Your task to perform on an android device: open app "NewsBreak: Local News & Alerts" Image 0: 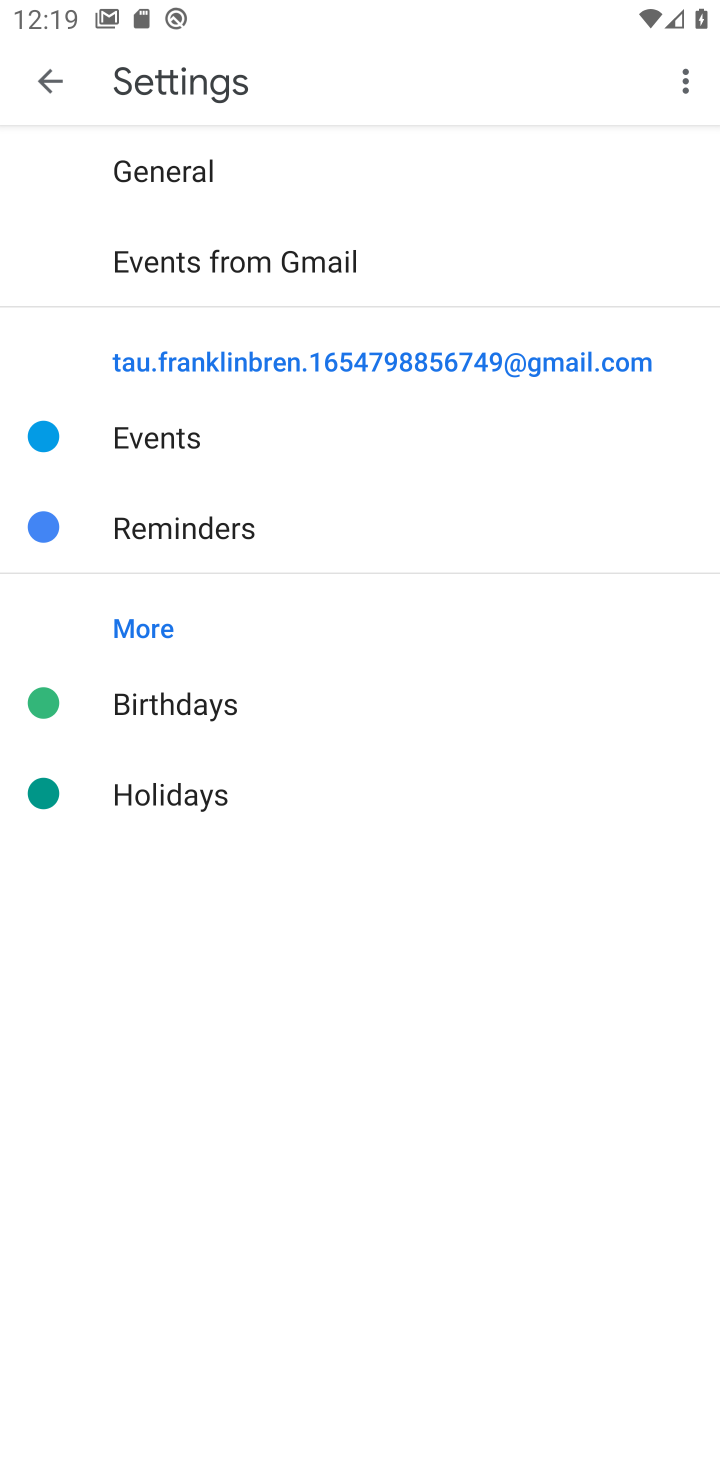
Step 0: press home button
Your task to perform on an android device: open app "NewsBreak: Local News & Alerts" Image 1: 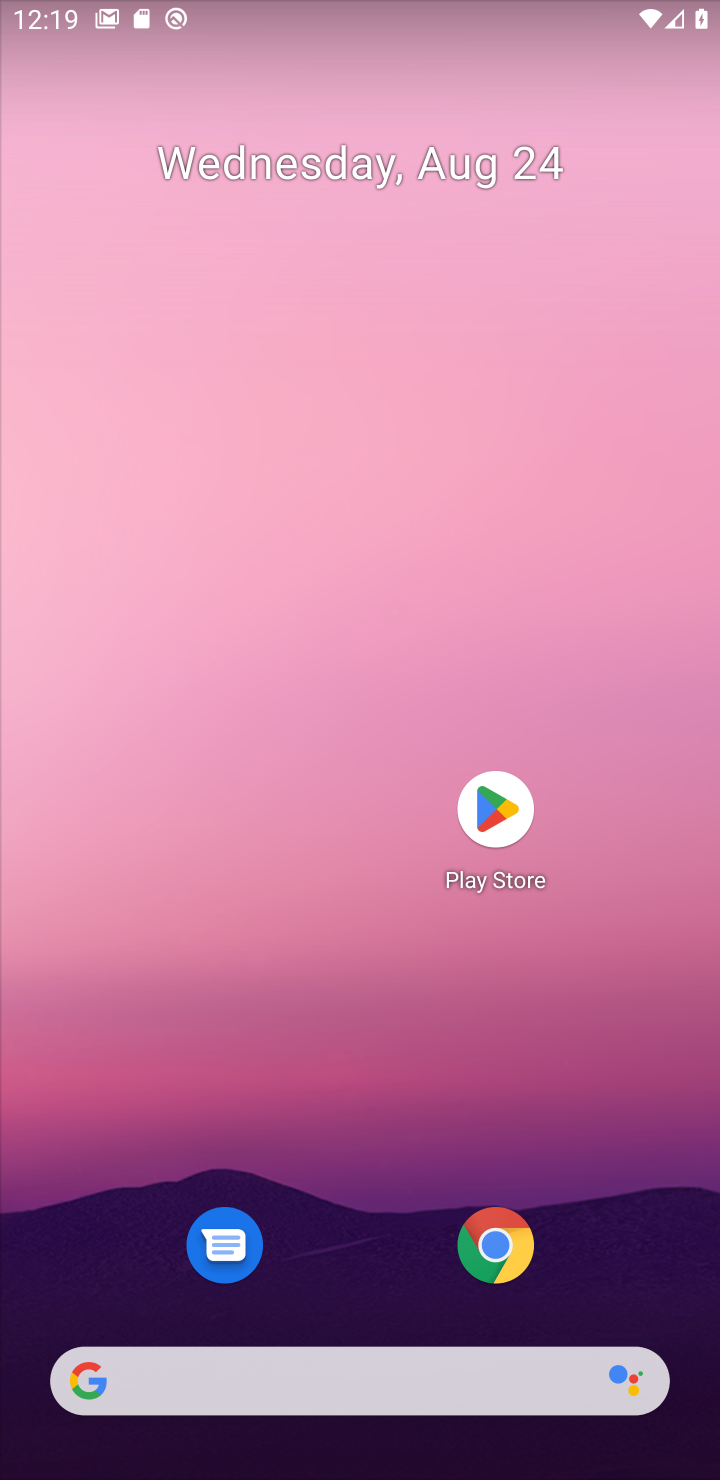
Step 1: click (495, 795)
Your task to perform on an android device: open app "NewsBreak: Local News & Alerts" Image 2: 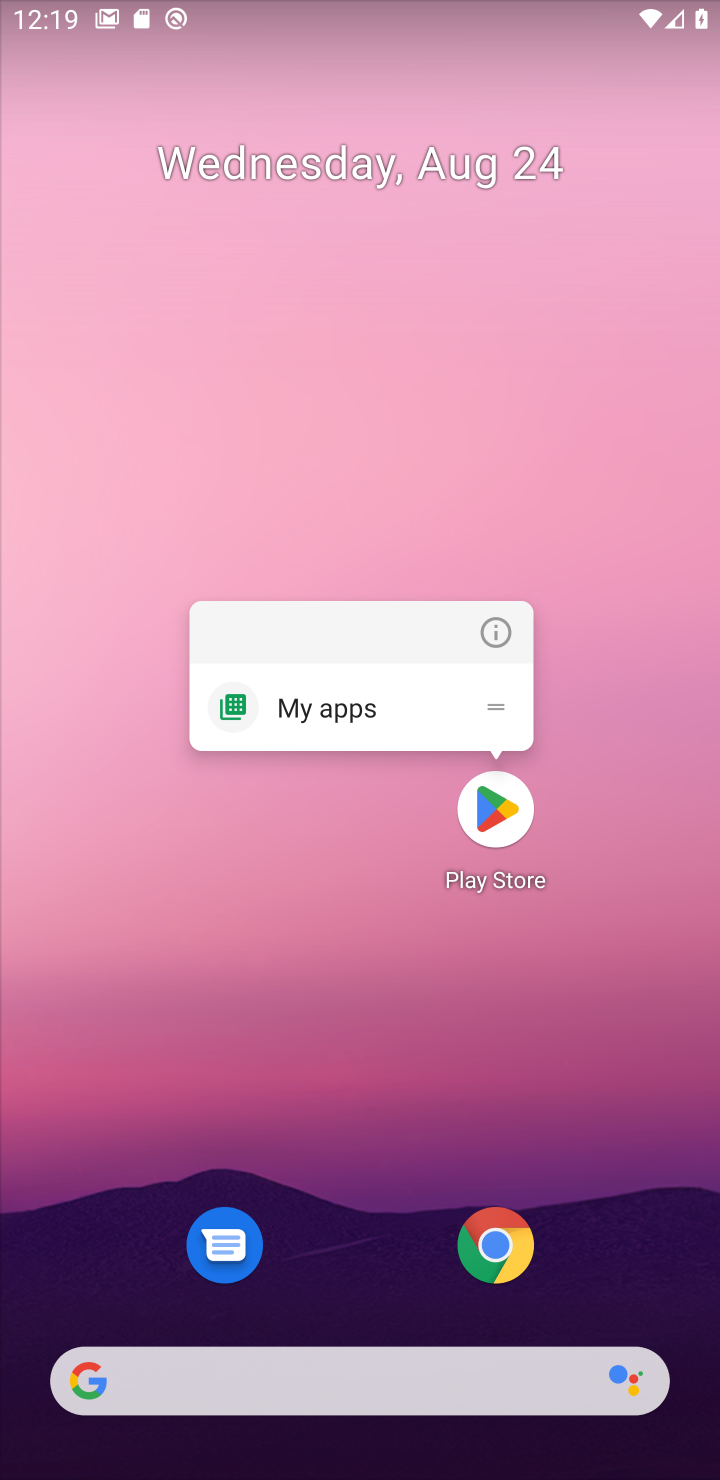
Step 2: click (495, 798)
Your task to perform on an android device: open app "NewsBreak: Local News & Alerts" Image 3: 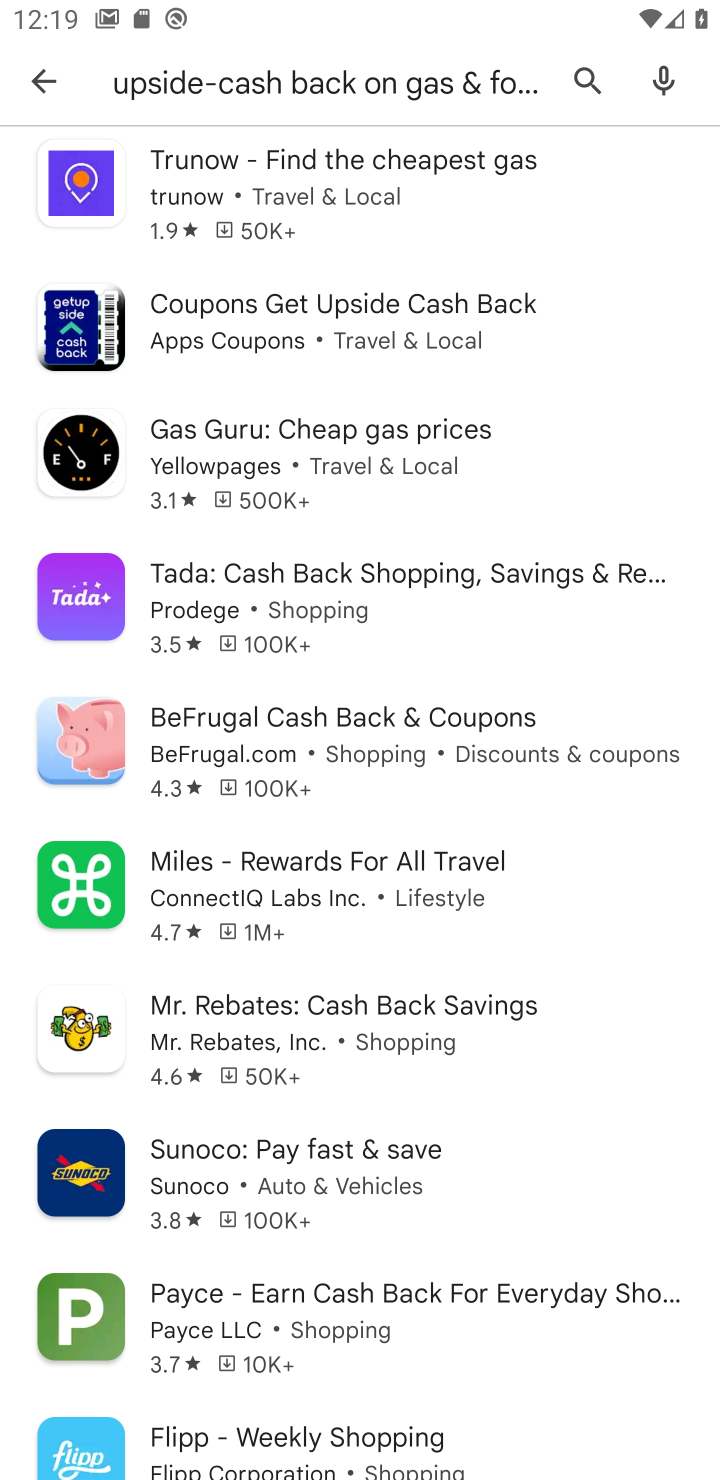
Step 3: click (586, 82)
Your task to perform on an android device: open app "NewsBreak: Local News & Alerts" Image 4: 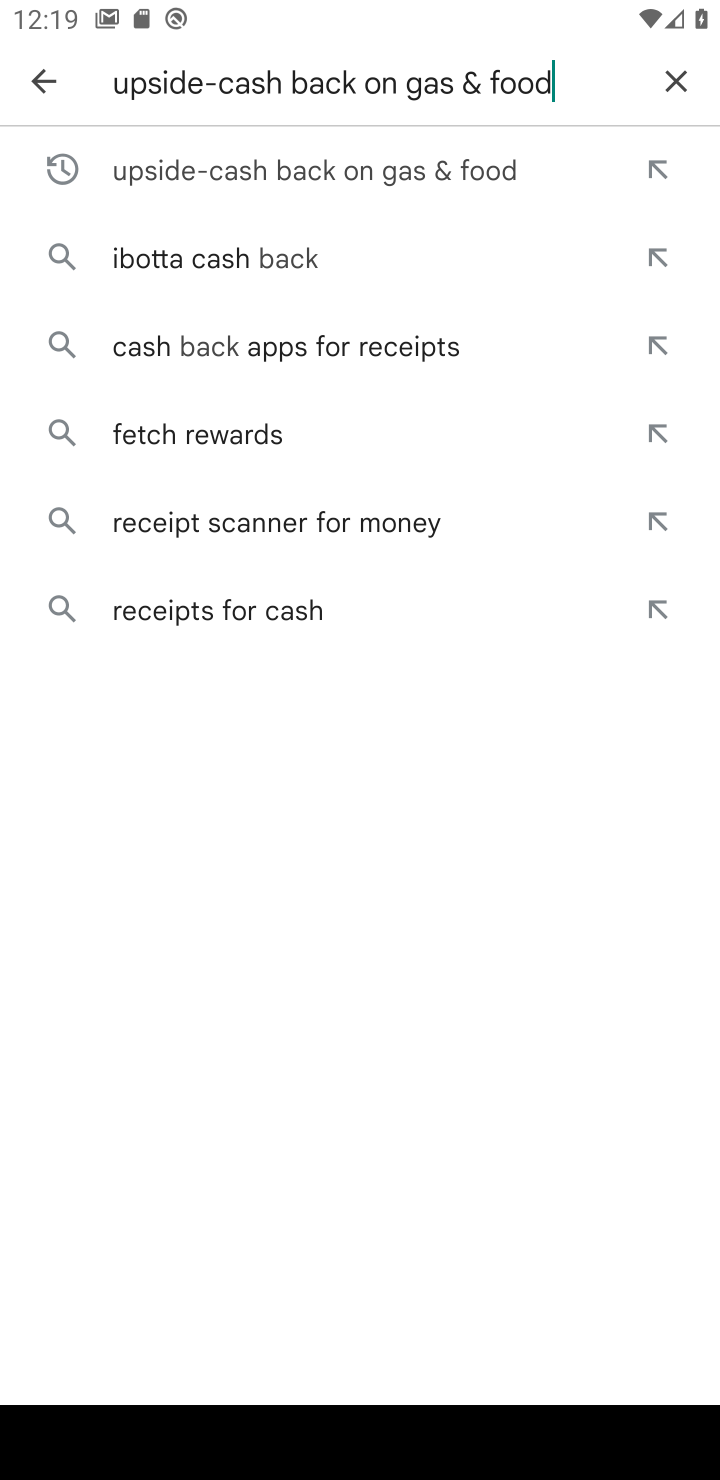
Step 4: click (681, 68)
Your task to perform on an android device: open app "NewsBreak: Local News & Alerts" Image 5: 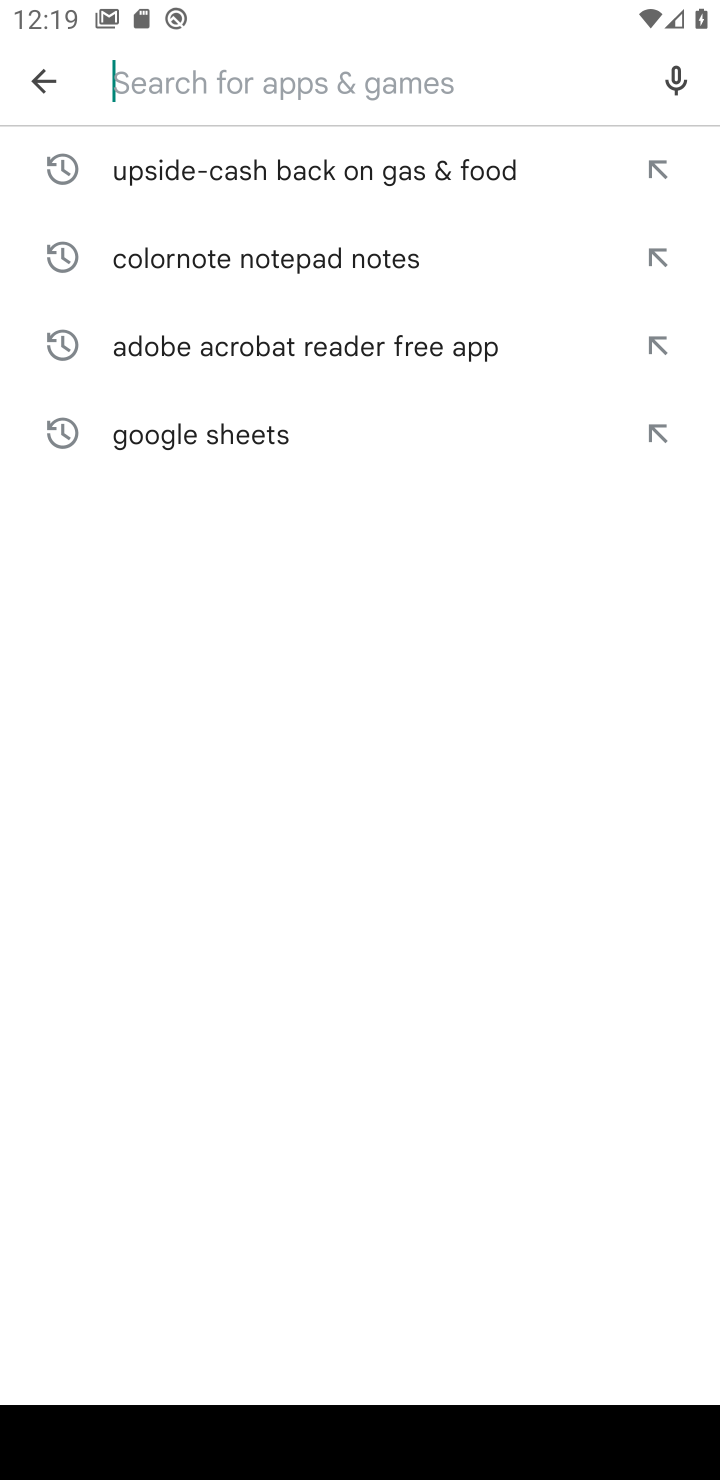
Step 5: type "NewsBreak: Local News & Alerts"
Your task to perform on an android device: open app "NewsBreak: Local News & Alerts" Image 6: 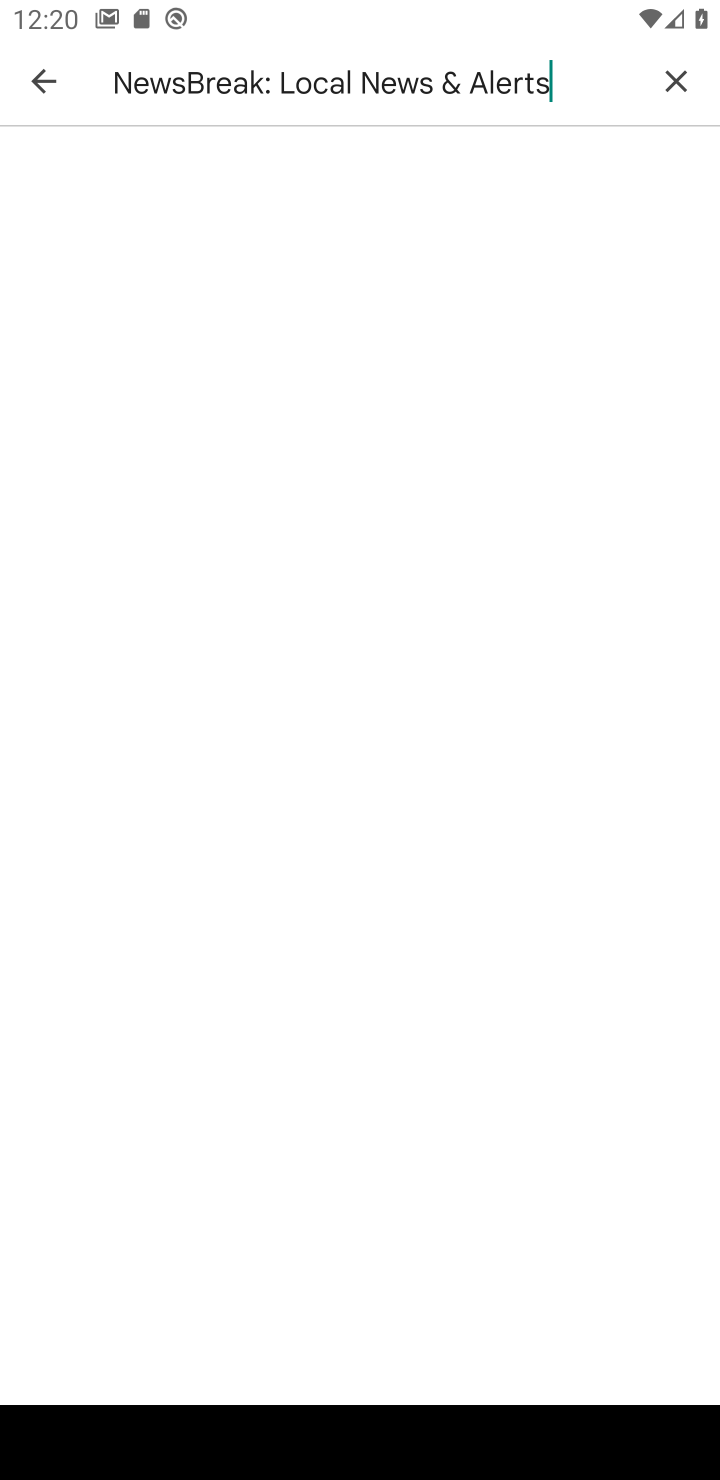
Step 6: task complete